Your task to perform on an android device: open a bookmark in the chrome app Image 0: 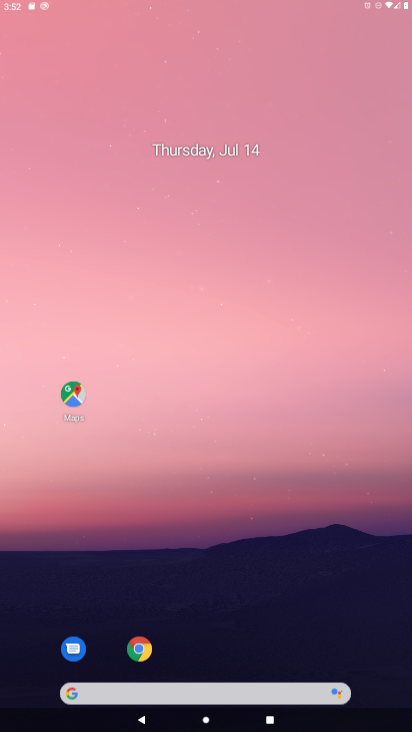
Step 0: click (211, 56)
Your task to perform on an android device: open a bookmark in the chrome app Image 1: 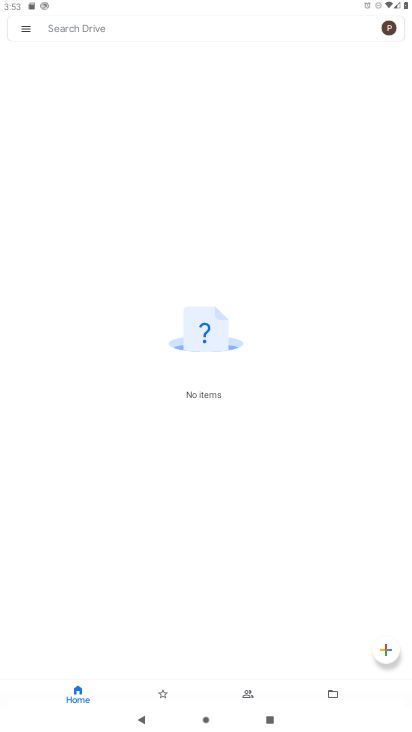
Step 1: press home button
Your task to perform on an android device: open a bookmark in the chrome app Image 2: 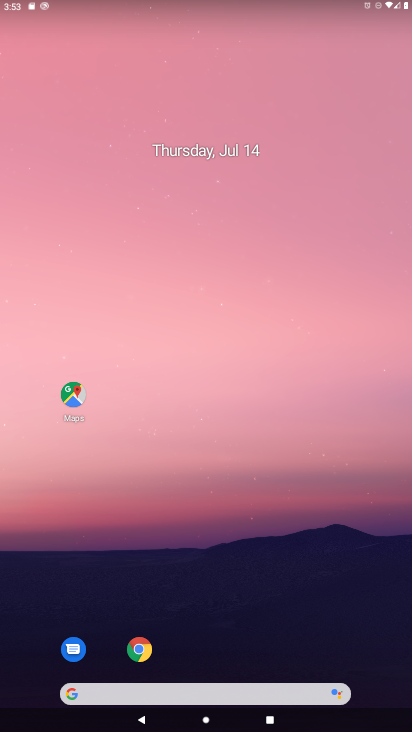
Step 2: click (137, 656)
Your task to perform on an android device: open a bookmark in the chrome app Image 3: 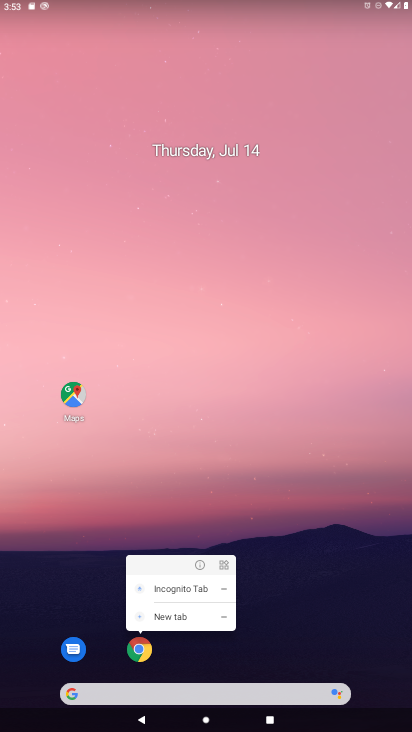
Step 3: click (140, 647)
Your task to perform on an android device: open a bookmark in the chrome app Image 4: 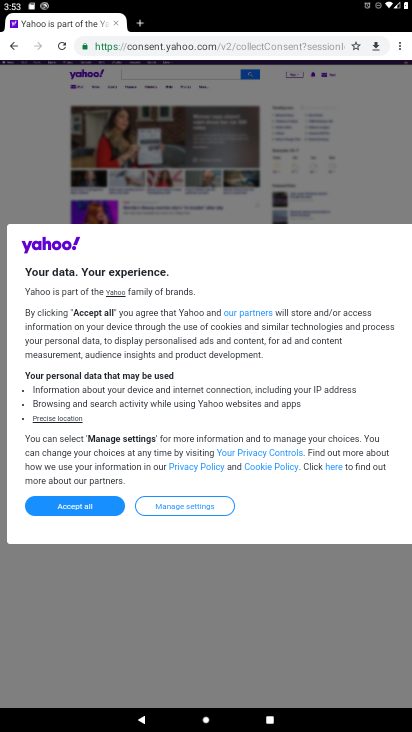
Step 4: click (398, 44)
Your task to perform on an android device: open a bookmark in the chrome app Image 5: 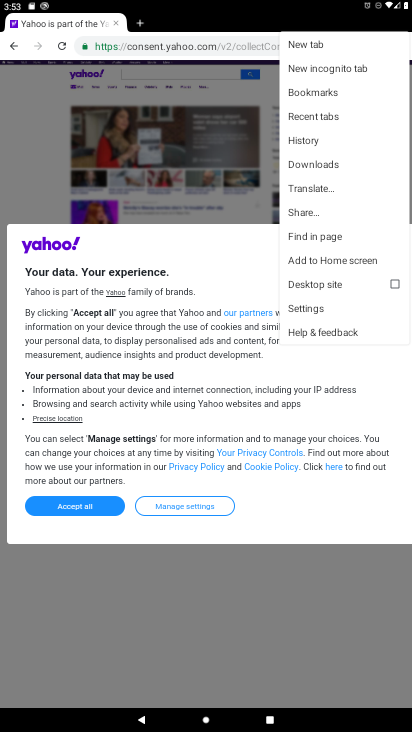
Step 5: click (324, 90)
Your task to perform on an android device: open a bookmark in the chrome app Image 6: 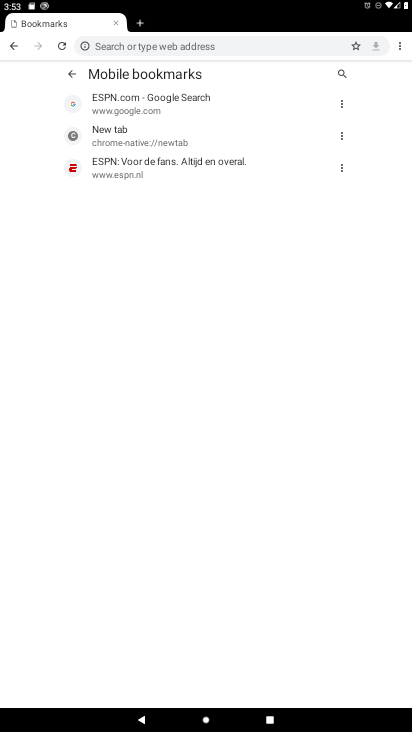
Step 6: click (157, 163)
Your task to perform on an android device: open a bookmark in the chrome app Image 7: 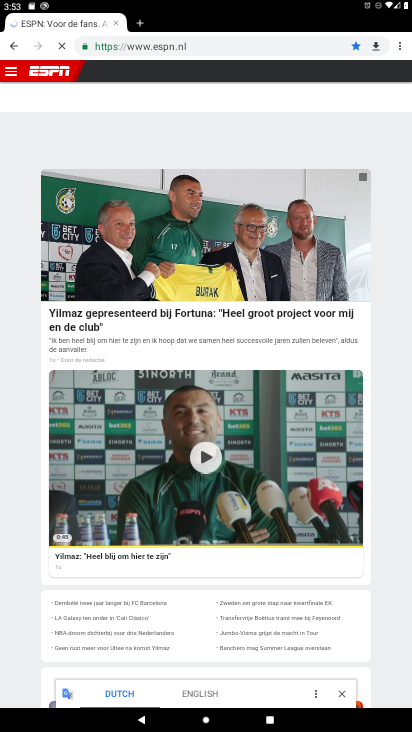
Step 7: task complete